Your task to perform on an android device: Go to Wikipedia Image 0: 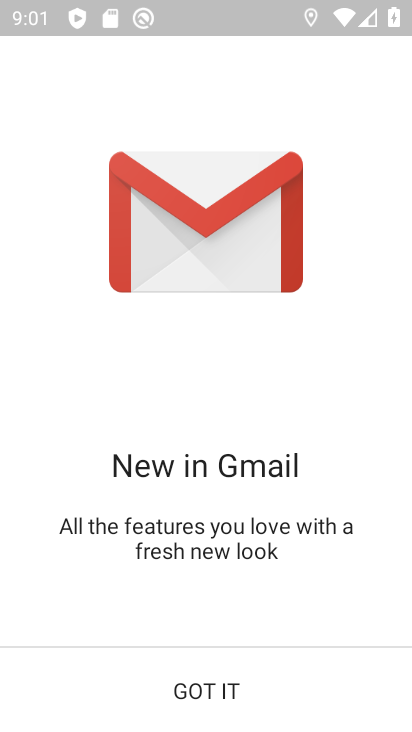
Step 0: press back button
Your task to perform on an android device: Go to Wikipedia Image 1: 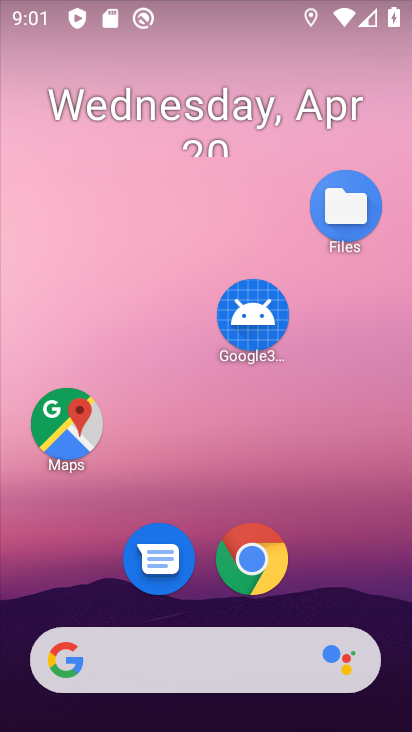
Step 1: drag from (193, 593) to (302, 22)
Your task to perform on an android device: Go to Wikipedia Image 2: 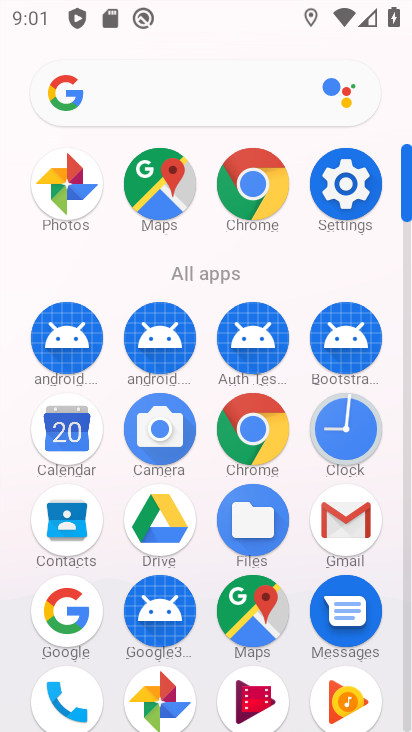
Step 2: click (256, 438)
Your task to perform on an android device: Go to Wikipedia Image 3: 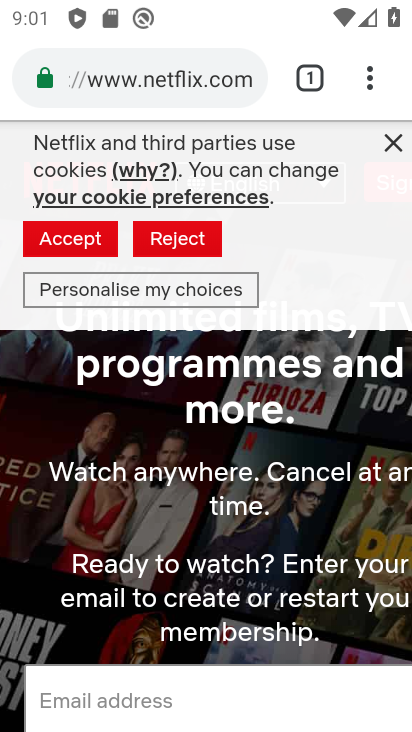
Step 3: press back button
Your task to perform on an android device: Go to Wikipedia Image 4: 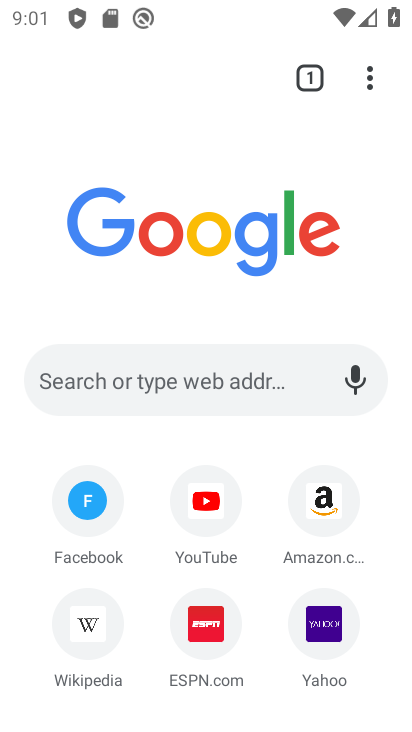
Step 4: click (88, 643)
Your task to perform on an android device: Go to Wikipedia Image 5: 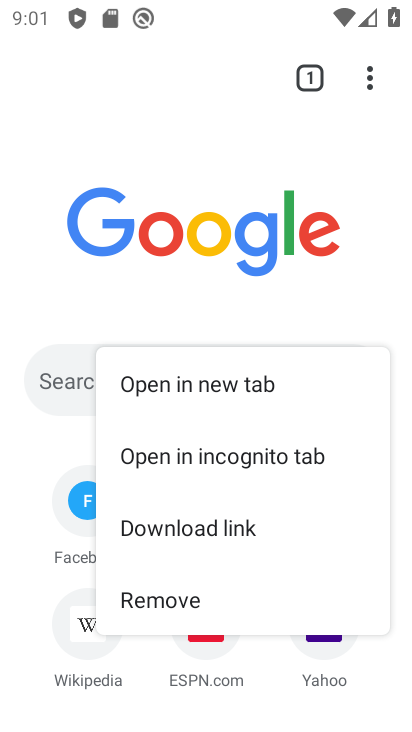
Step 5: click (75, 618)
Your task to perform on an android device: Go to Wikipedia Image 6: 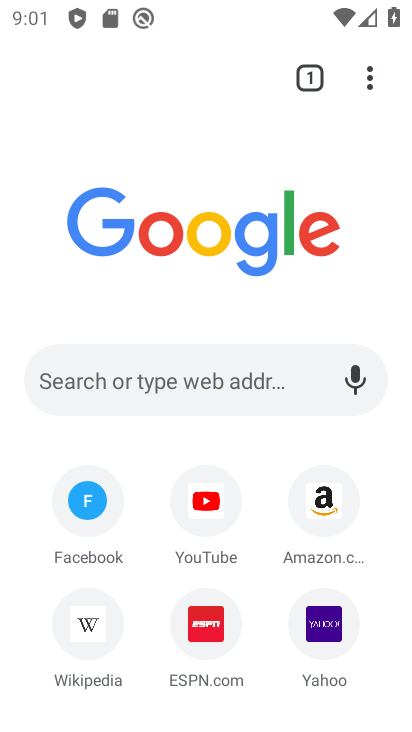
Step 6: click (96, 628)
Your task to perform on an android device: Go to Wikipedia Image 7: 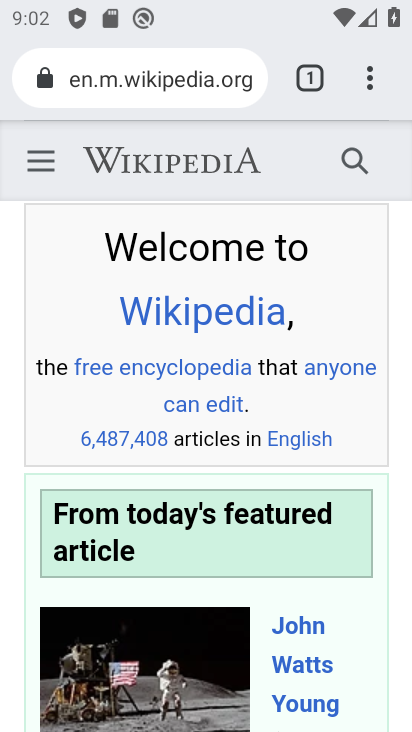
Step 7: task complete